Your task to perform on an android device: turn off notifications in google photos Image 0: 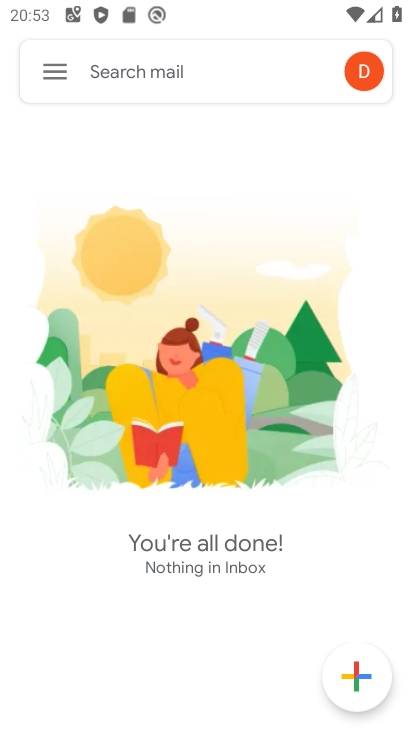
Step 0: press back button
Your task to perform on an android device: turn off notifications in google photos Image 1: 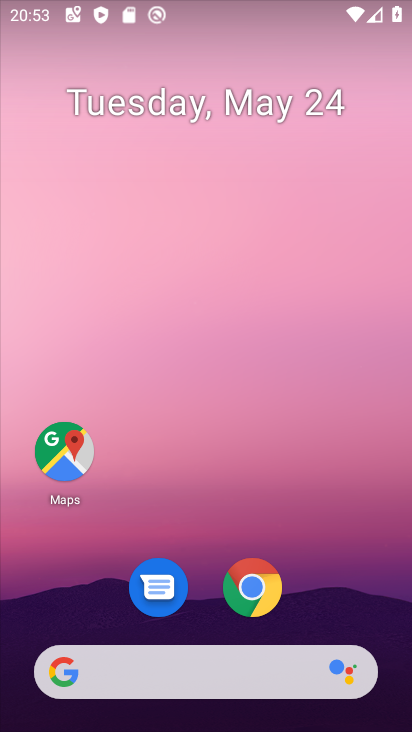
Step 1: drag from (337, 566) to (245, 25)
Your task to perform on an android device: turn off notifications in google photos Image 2: 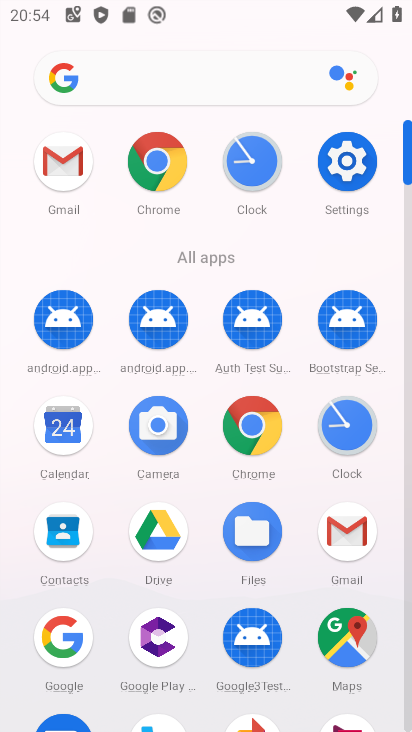
Step 2: drag from (13, 559) to (5, 217)
Your task to perform on an android device: turn off notifications in google photos Image 3: 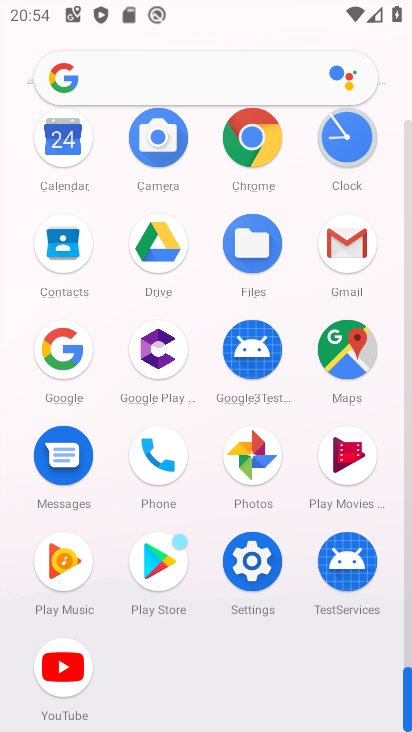
Step 3: click (251, 451)
Your task to perform on an android device: turn off notifications in google photos Image 4: 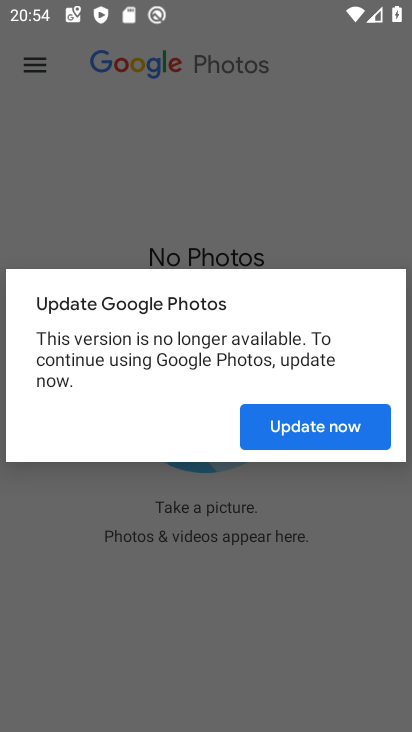
Step 4: click (270, 432)
Your task to perform on an android device: turn off notifications in google photos Image 5: 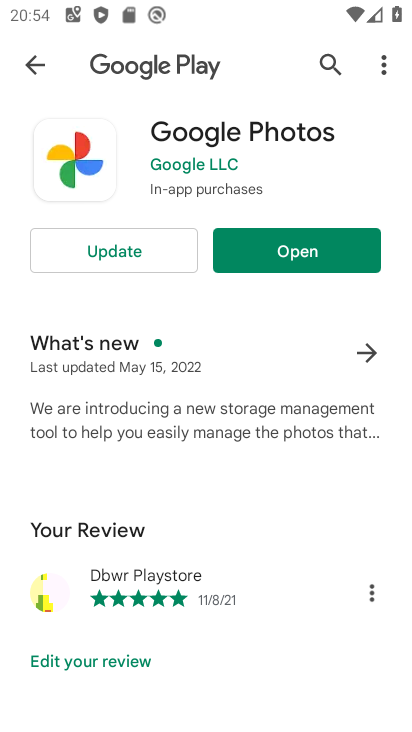
Step 5: click (156, 251)
Your task to perform on an android device: turn off notifications in google photos Image 6: 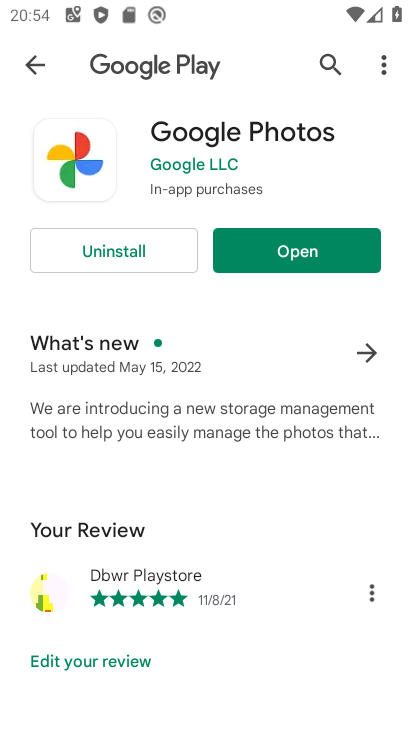
Step 6: click (288, 241)
Your task to perform on an android device: turn off notifications in google photos Image 7: 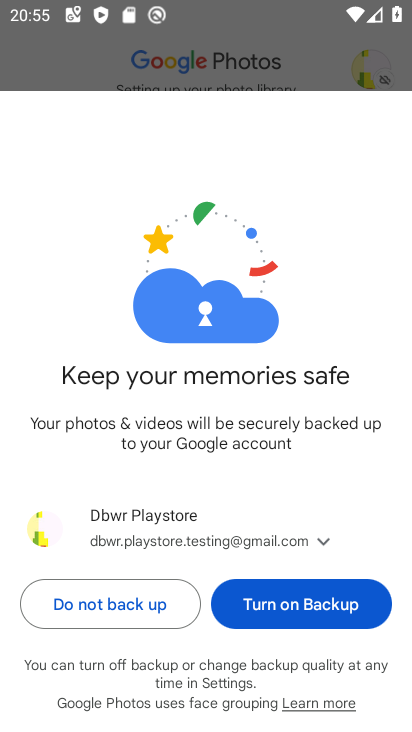
Step 7: click (301, 600)
Your task to perform on an android device: turn off notifications in google photos Image 8: 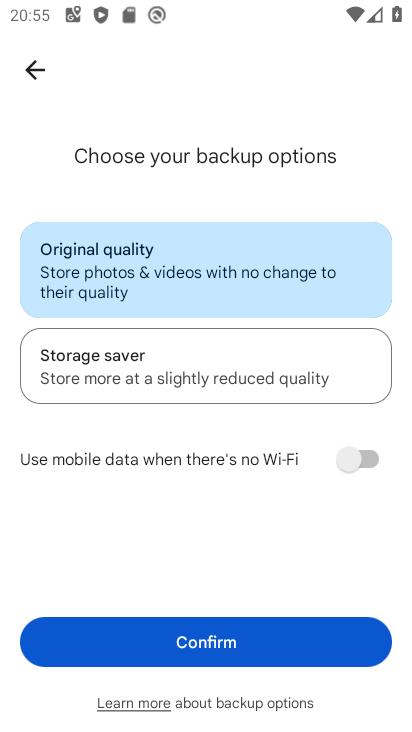
Step 8: click (179, 644)
Your task to perform on an android device: turn off notifications in google photos Image 9: 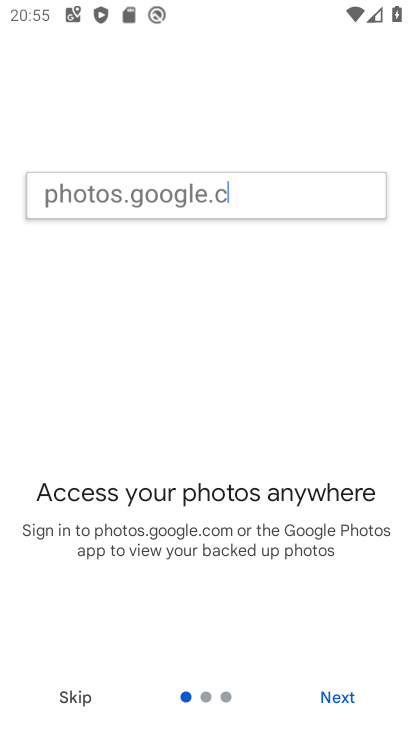
Step 9: click (316, 698)
Your task to perform on an android device: turn off notifications in google photos Image 10: 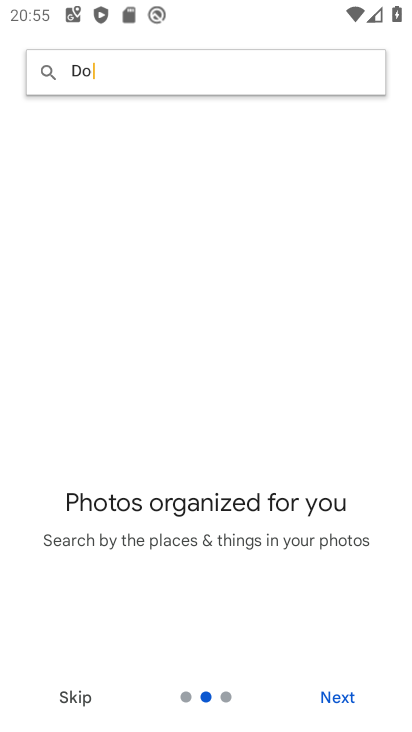
Step 10: click (317, 696)
Your task to perform on an android device: turn off notifications in google photos Image 11: 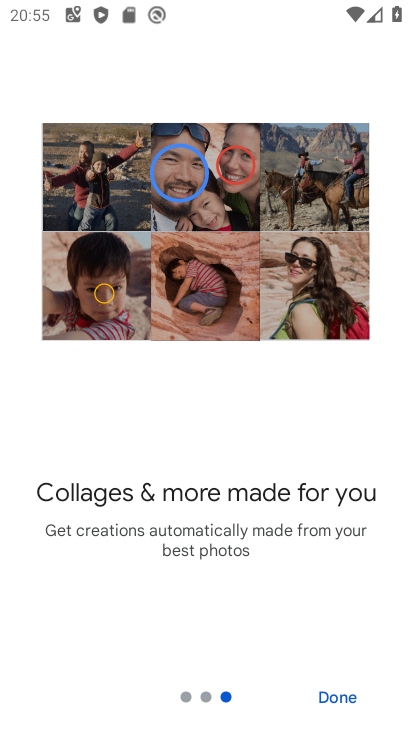
Step 11: click (317, 696)
Your task to perform on an android device: turn off notifications in google photos Image 12: 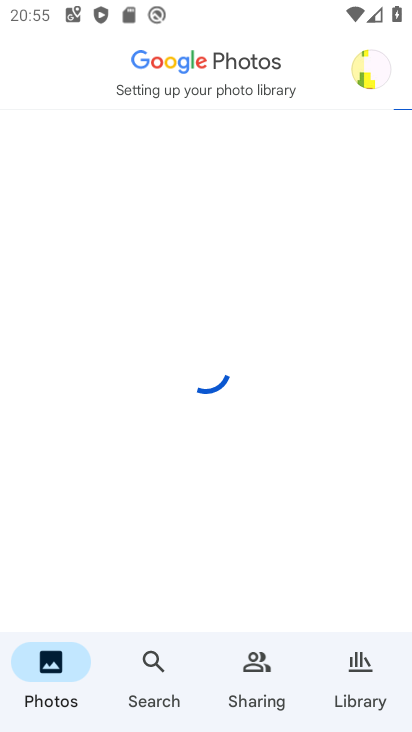
Step 12: click (375, 67)
Your task to perform on an android device: turn off notifications in google photos Image 13: 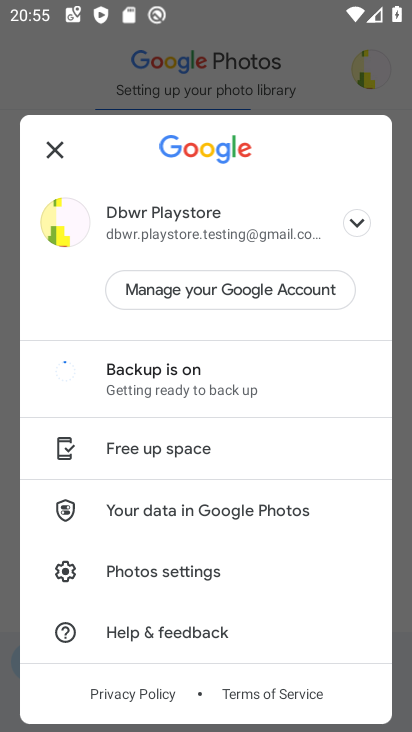
Step 13: click (188, 568)
Your task to perform on an android device: turn off notifications in google photos Image 14: 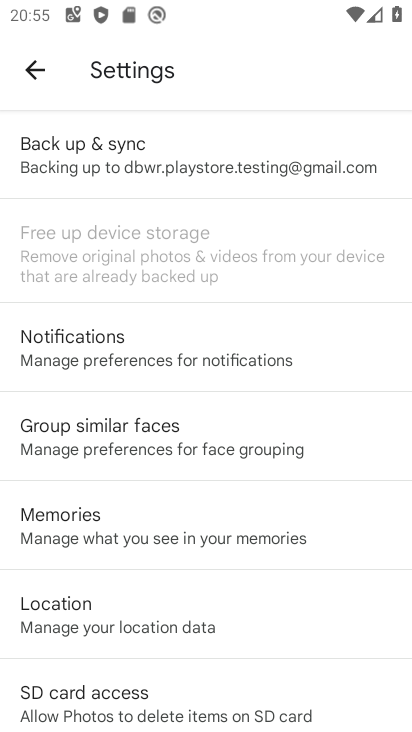
Step 14: click (188, 342)
Your task to perform on an android device: turn off notifications in google photos Image 15: 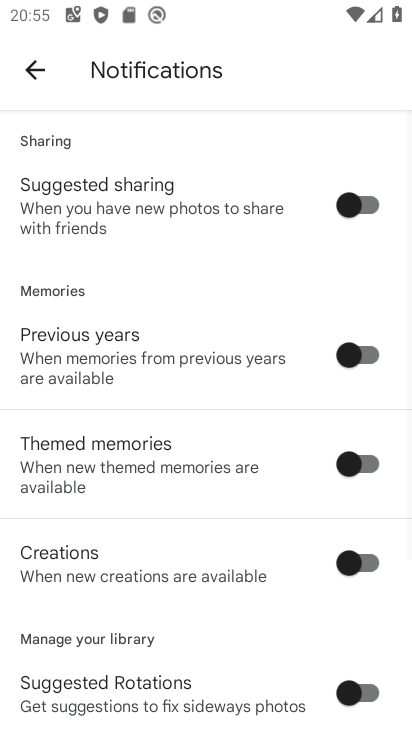
Step 15: drag from (188, 586) to (177, 136)
Your task to perform on an android device: turn off notifications in google photos Image 16: 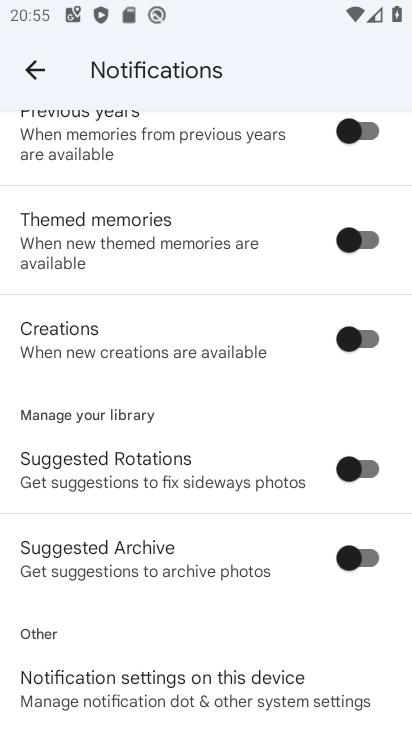
Step 16: click (154, 698)
Your task to perform on an android device: turn off notifications in google photos Image 17: 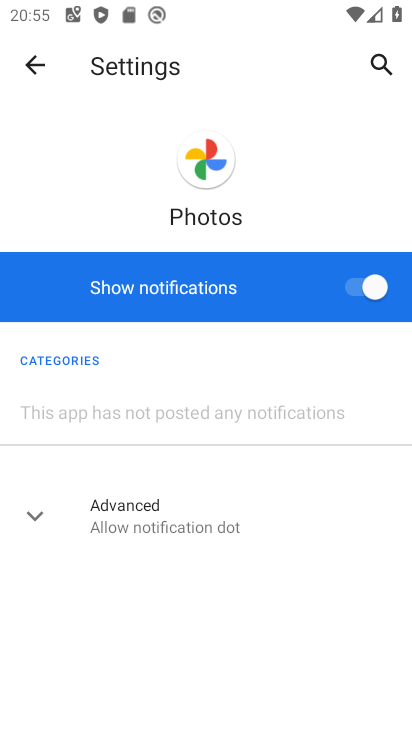
Step 17: click (368, 270)
Your task to perform on an android device: turn off notifications in google photos Image 18: 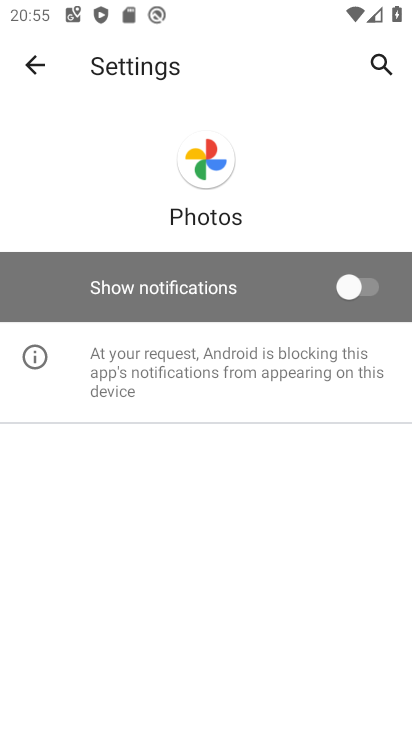
Step 18: task complete